Your task to perform on an android device: Search for pizza restaurants on Maps Image 0: 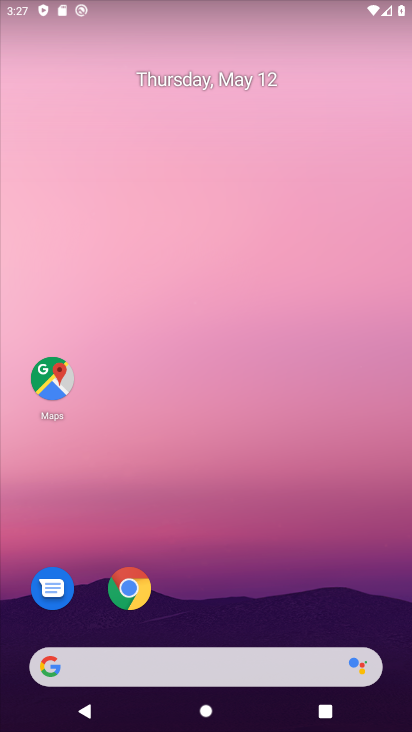
Step 0: click (47, 391)
Your task to perform on an android device: Search for pizza restaurants on Maps Image 1: 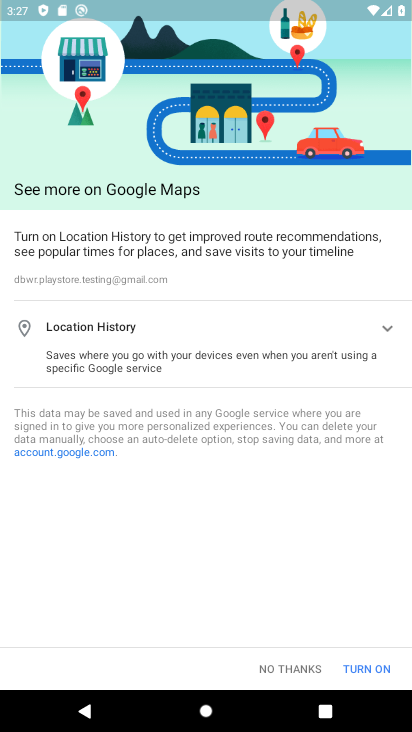
Step 1: click (339, 668)
Your task to perform on an android device: Search for pizza restaurants on Maps Image 2: 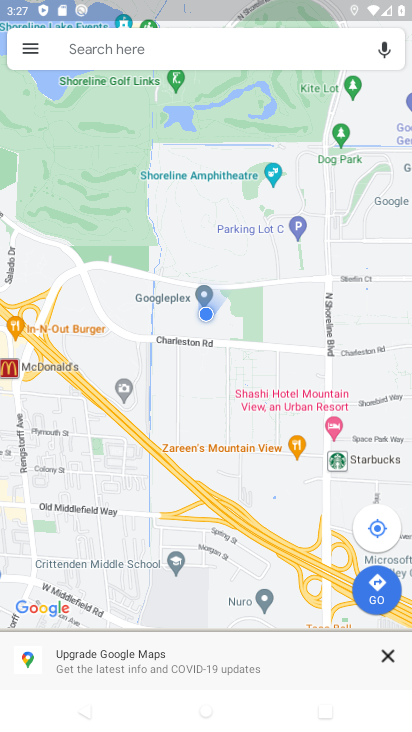
Step 2: click (85, 43)
Your task to perform on an android device: Search for pizza restaurants on Maps Image 3: 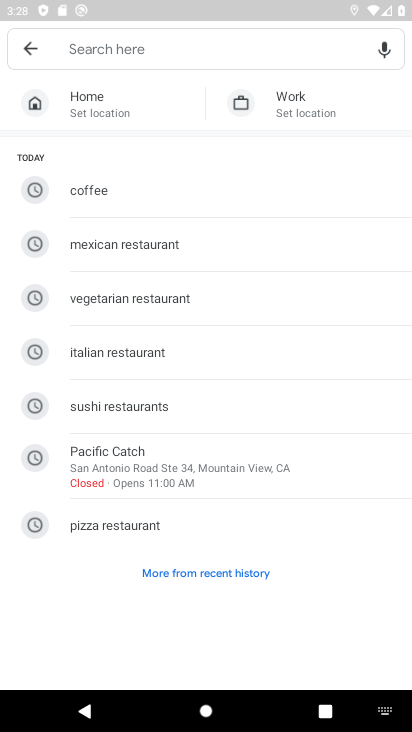
Step 3: type "pizzza"
Your task to perform on an android device: Search for pizza restaurants on Maps Image 4: 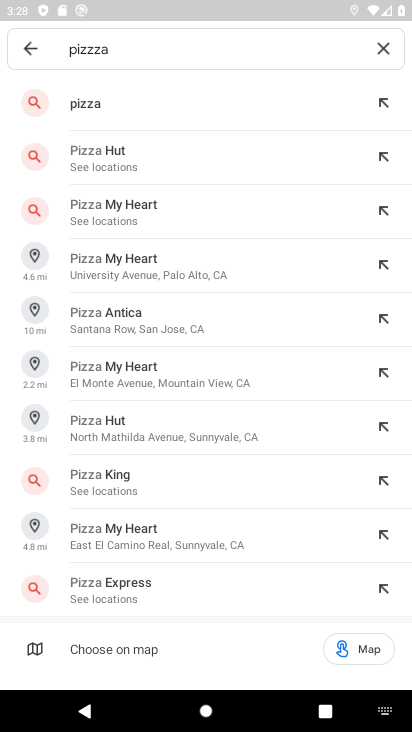
Step 4: click (206, 119)
Your task to perform on an android device: Search for pizza restaurants on Maps Image 5: 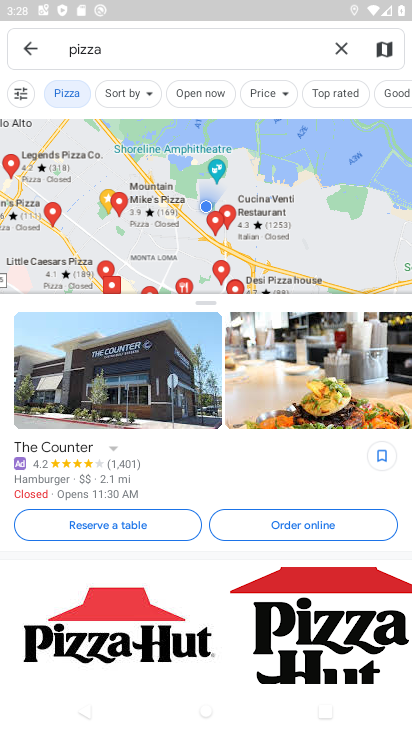
Step 5: task complete